Your task to perform on an android device: install app "Facebook Messenger" Image 0: 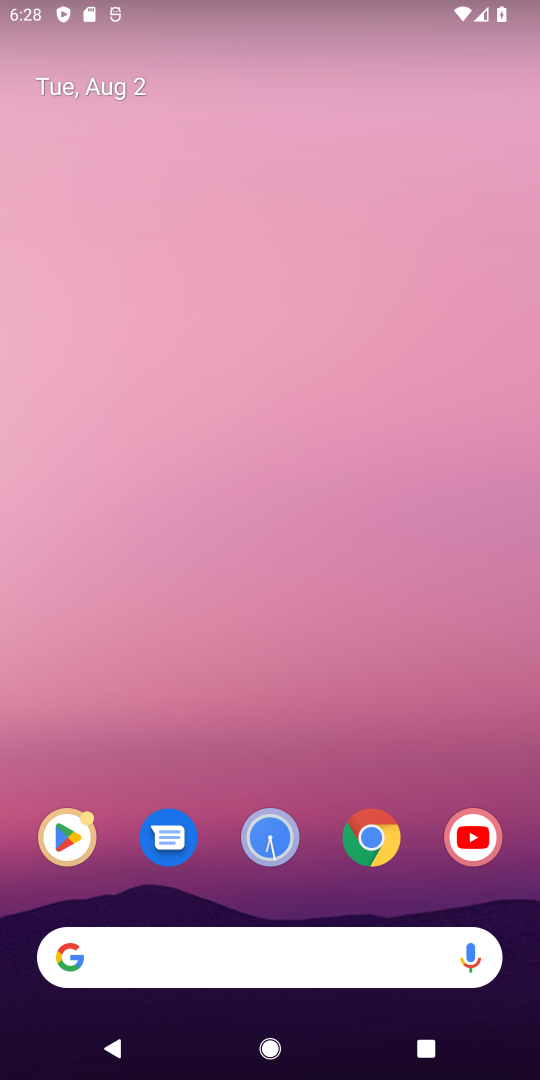
Step 0: click (65, 846)
Your task to perform on an android device: install app "Facebook Messenger" Image 1: 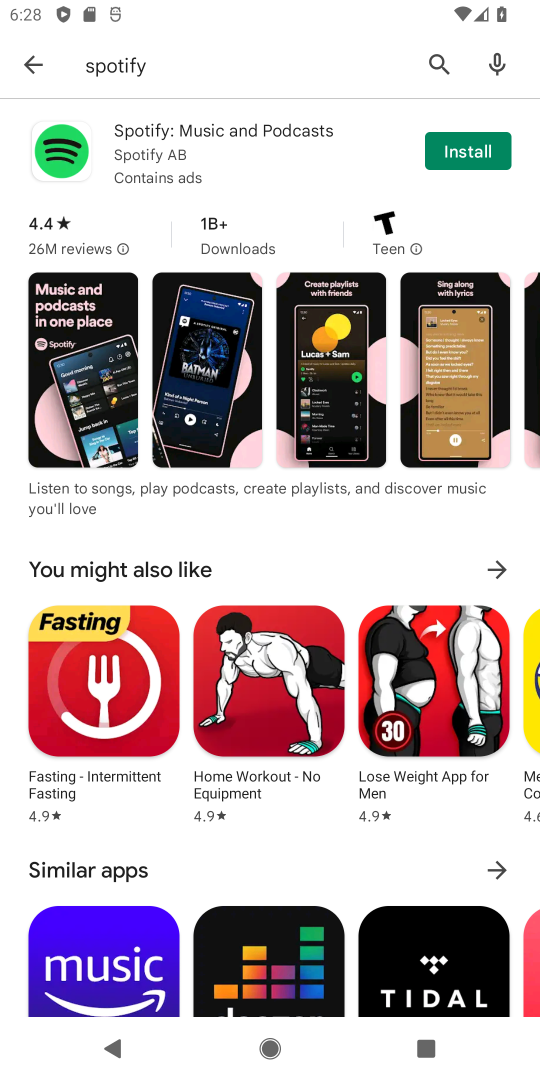
Step 1: click (428, 56)
Your task to perform on an android device: install app "Facebook Messenger" Image 2: 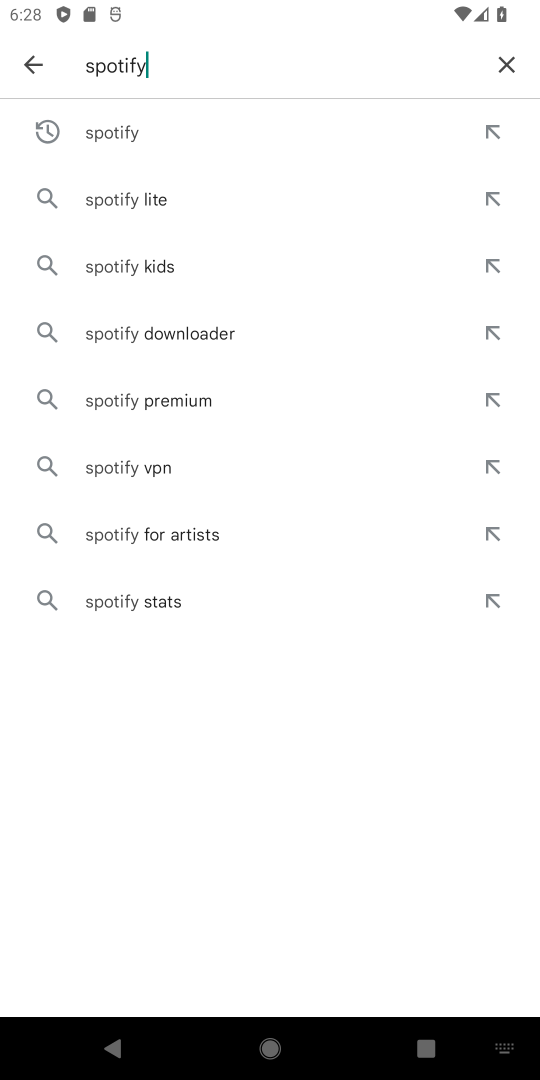
Step 2: click (514, 61)
Your task to perform on an android device: install app "Facebook Messenger" Image 3: 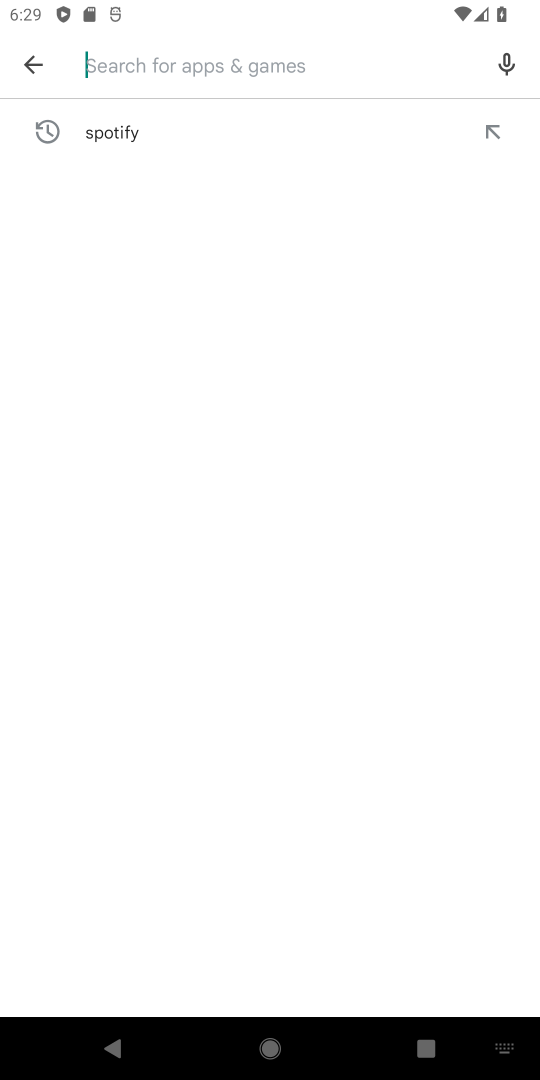
Step 3: type "Facebook Messenger"
Your task to perform on an android device: install app "Facebook Messenger" Image 4: 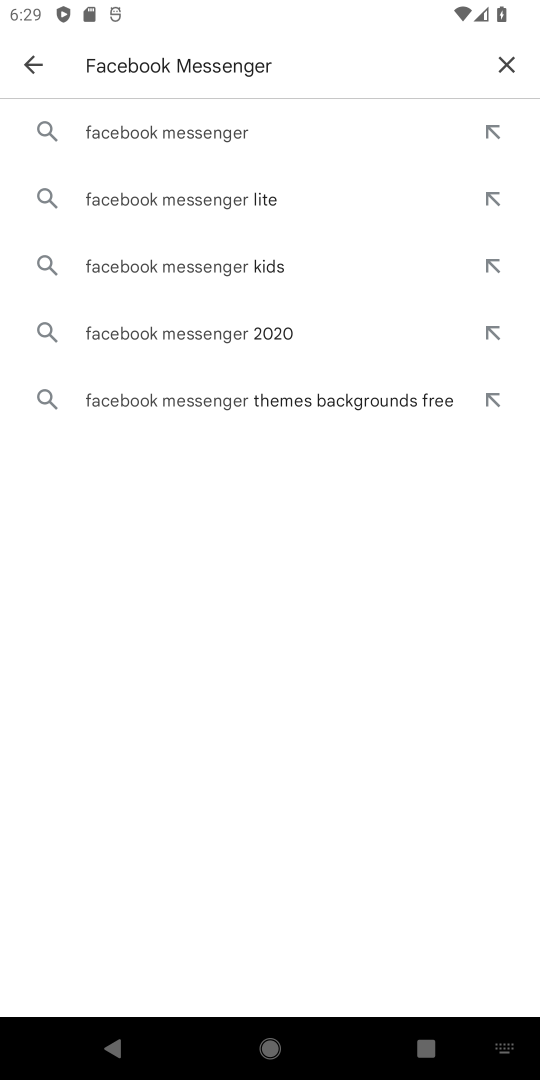
Step 4: click (173, 133)
Your task to perform on an android device: install app "Facebook Messenger" Image 5: 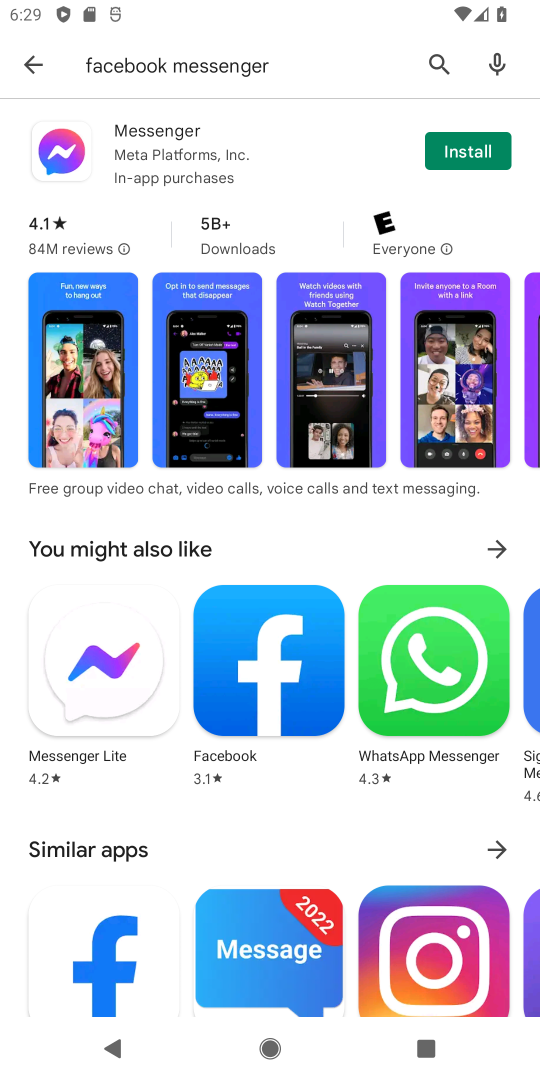
Step 5: click (463, 157)
Your task to perform on an android device: install app "Facebook Messenger" Image 6: 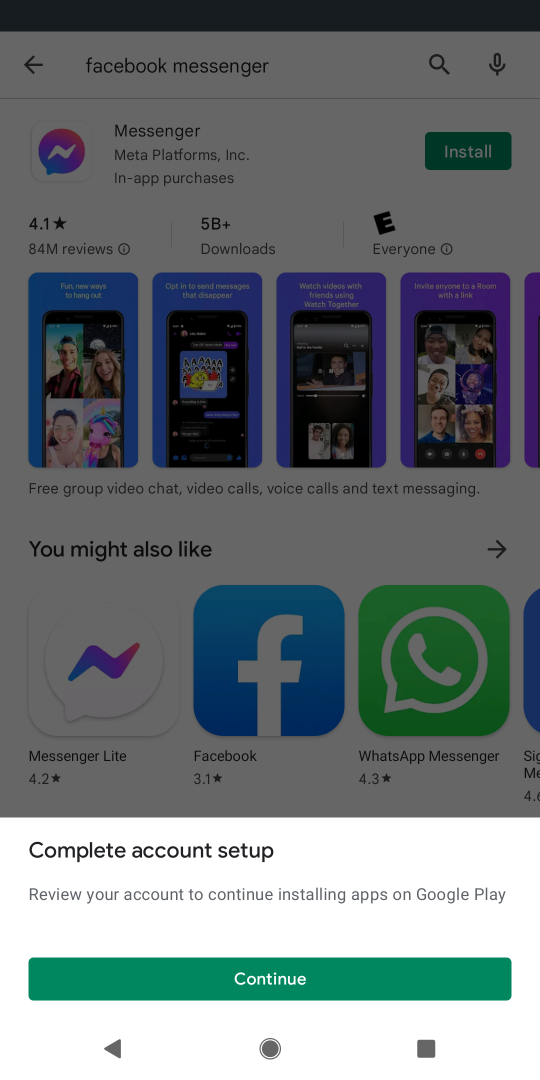
Step 6: click (339, 967)
Your task to perform on an android device: install app "Facebook Messenger" Image 7: 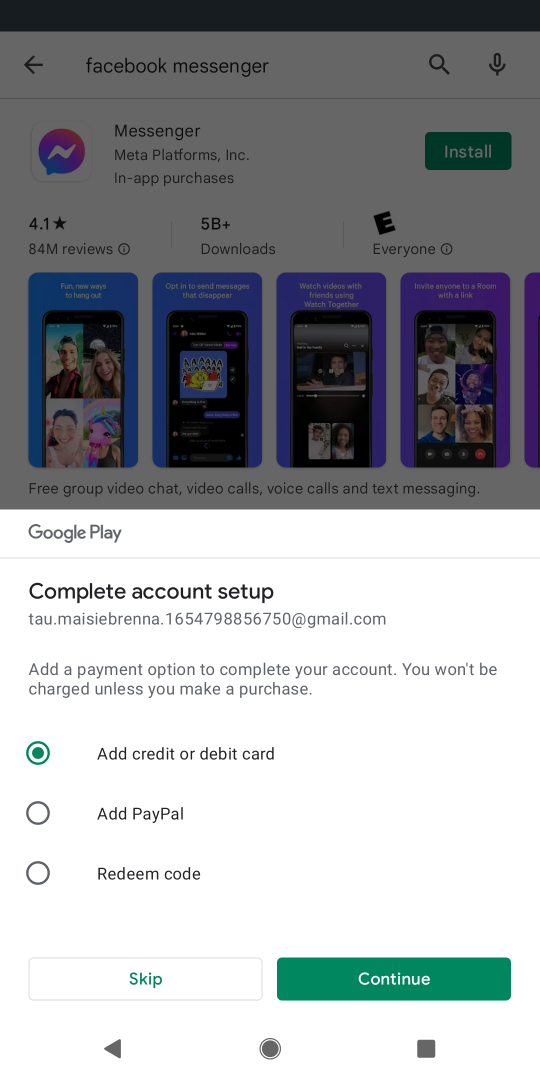
Step 7: click (196, 976)
Your task to perform on an android device: install app "Facebook Messenger" Image 8: 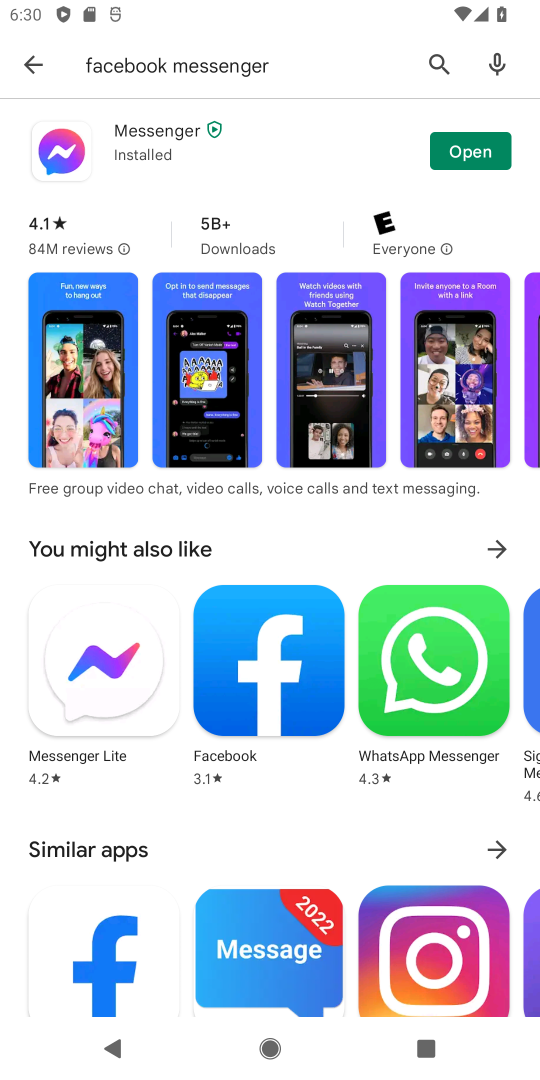
Step 8: task complete